Your task to perform on an android device: turn on notifications settings in the gmail app Image 0: 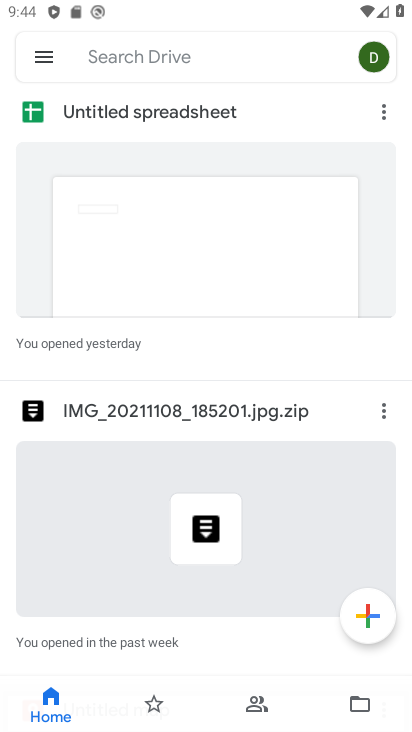
Step 0: press home button
Your task to perform on an android device: turn on notifications settings in the gmail app Image 1: 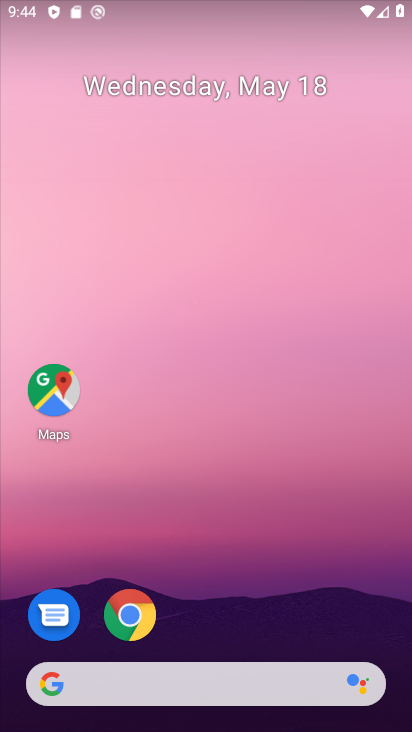
Step 1: drag from (201, 643) to (178, 227)
Your task to perform on an android device: turn on notifications settings in the gmail app Image 2: 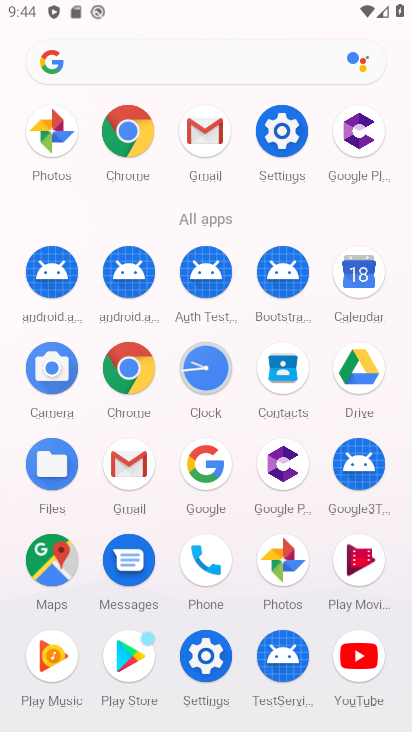
Step 2: click (210, 135)
Your task to perform on an android device: turn on notifications settings in the gmail app Image 3: 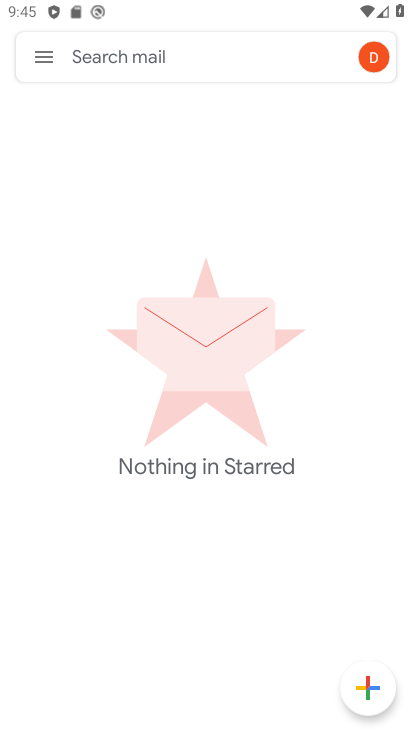
Step 3: click (42, 52)
Your task to perform on an android device: turn on notifications settings in the gmail app Image 4: 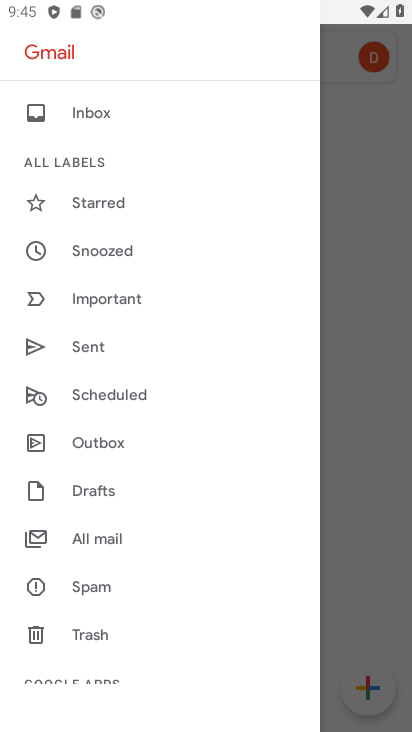
Step 4: drag from (107, 656) to (109, 279)
Your task to perform on an android device: turn on notifications settings in the gmail app Image 5: 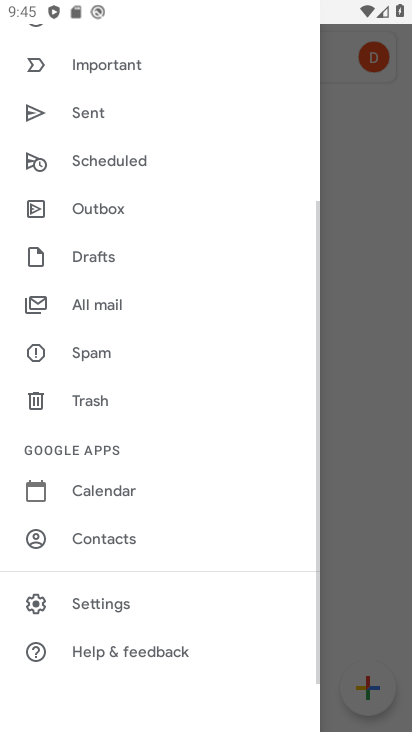
Step 5: click (100, 611)
Your task to perform on an android device: turn on notifications settings in the gmail app Image 6: 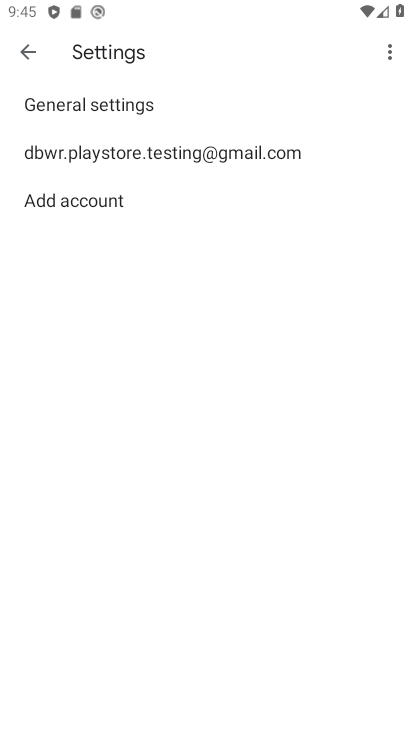
Step 6: click (73, 109)
Your task to perform on an android device: turn on notifications settings in the gmail app Image 7: 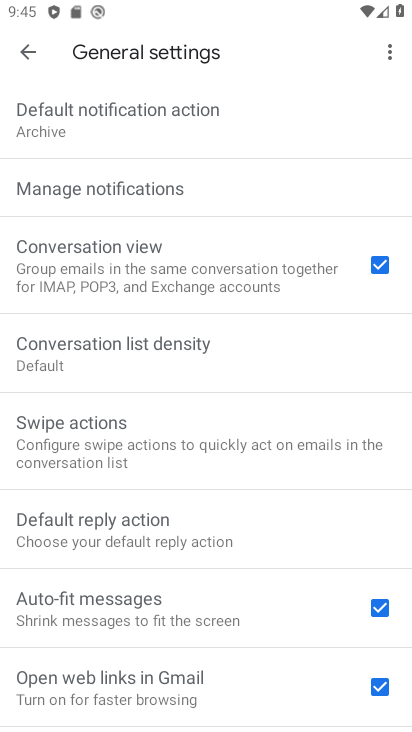
Step 7: click (104, 197)
Your task to perform on an android device: turn on notifications settings in the gmail app Image 8: 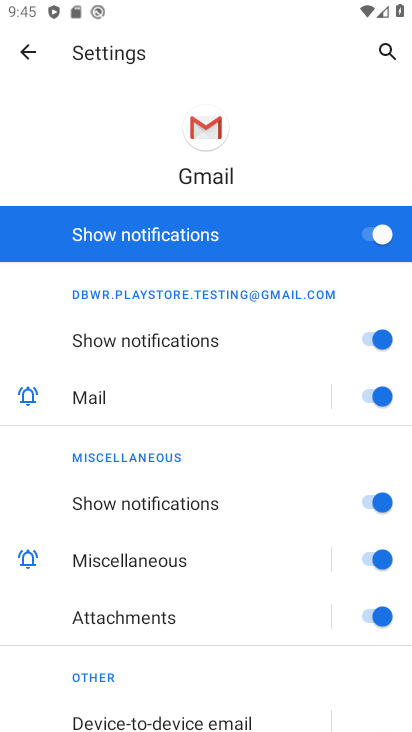
Step 8: task complete